Your task to perform on an android device: turn off javascript in the chrome app Image 0: 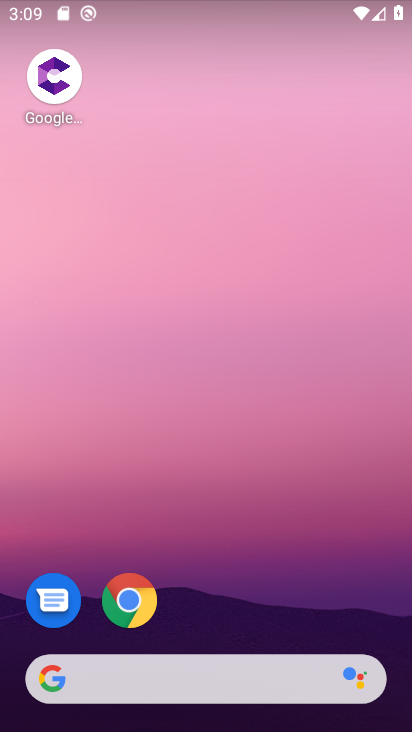
Step 0: click (131, 602)
Your task to perform on an android device: turn off javascript in the chrome app Image 1: 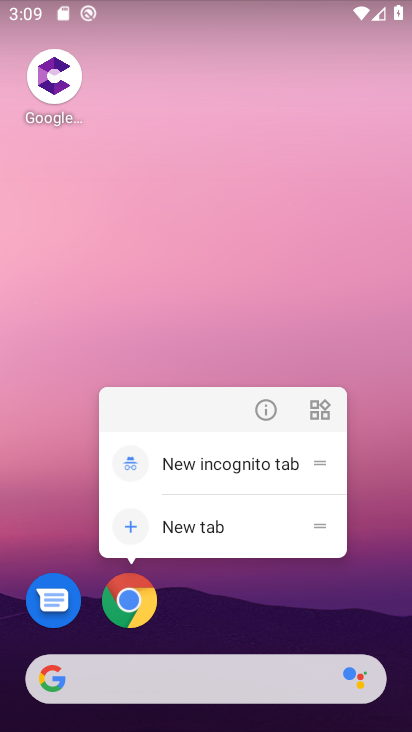
Step 1: click (125, 599)
Your task to perform on an android device: turn off javascript in the chrome app Image 2: 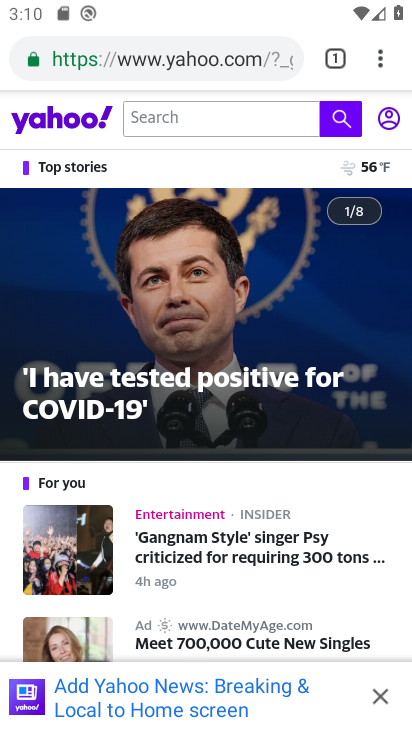
Step 2: click (378, 52)
Your task to perform on an android device: turn off javascript in the chrome app Image 3: 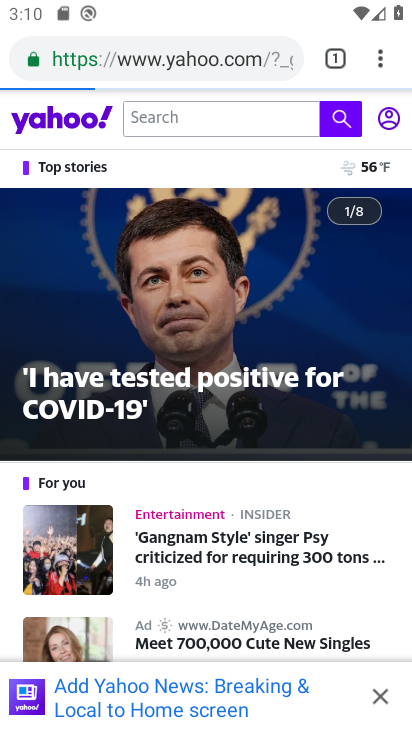
Step 3: drag from (371, 53) to (210, 637)
Your task to perform on an android device: turn off javascript in the chrome app Image 4: 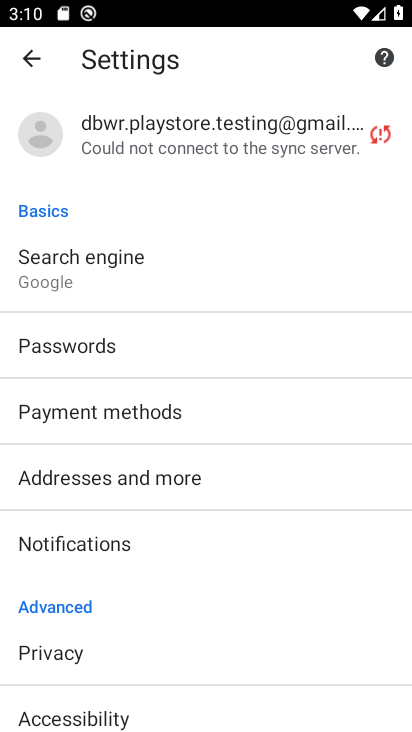
Step 4: drag from (165, 613) to (217, 247)
Your task to perform on an android device: turn off javascript in the chrome app Image 5: 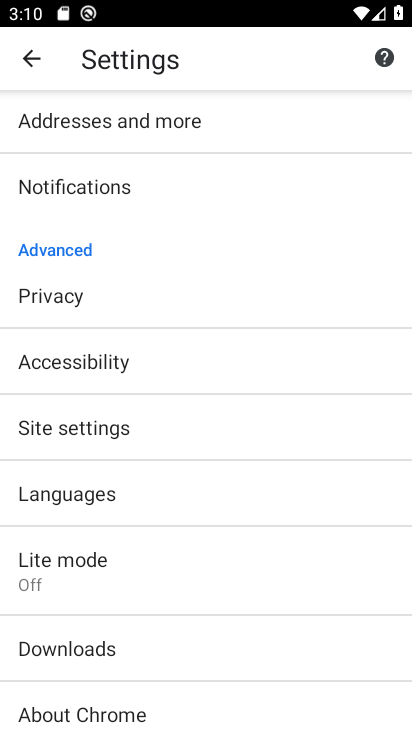
Step 5: click (91, 438)
Your task to perform on an android device: turn off javascript in the chrome app Image 6: 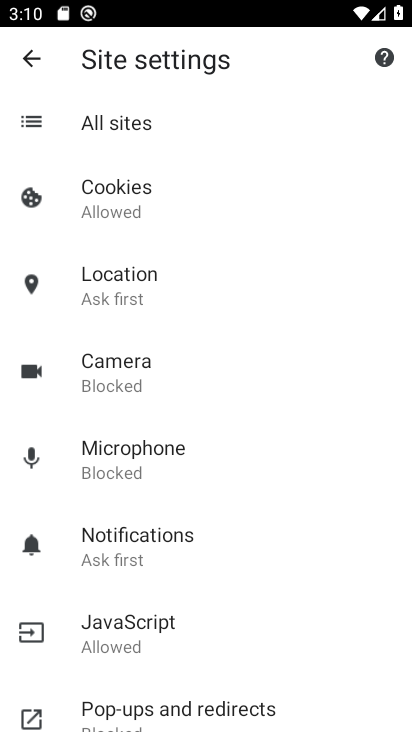
Step 6: click (154, 633)
Your task to perform on an android device: turn off javascript in the chrome app Image 7: 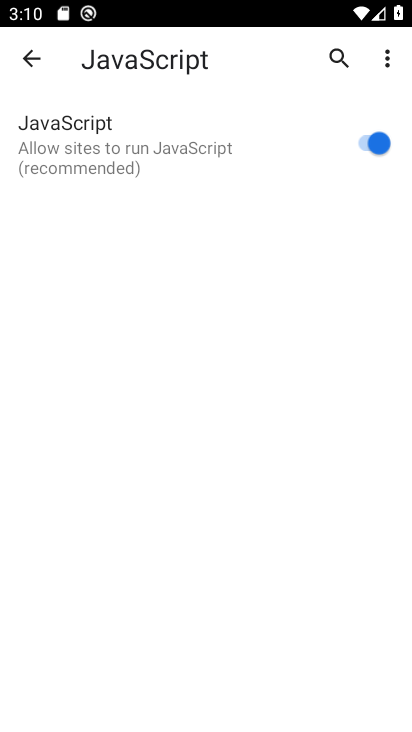
Step 7: click (366, 132)
Your task to perform on an android device: turn off javascript in the chrome app Image 8: 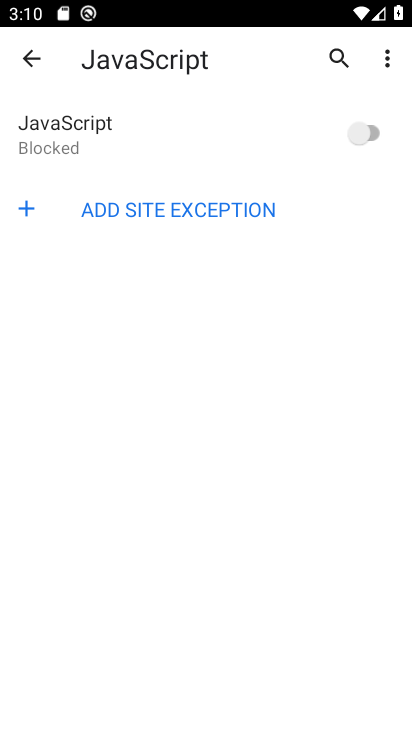
Step 8: task complete